Your task to perform on an android device: turn on showing notifications on the lock screen Image 0: 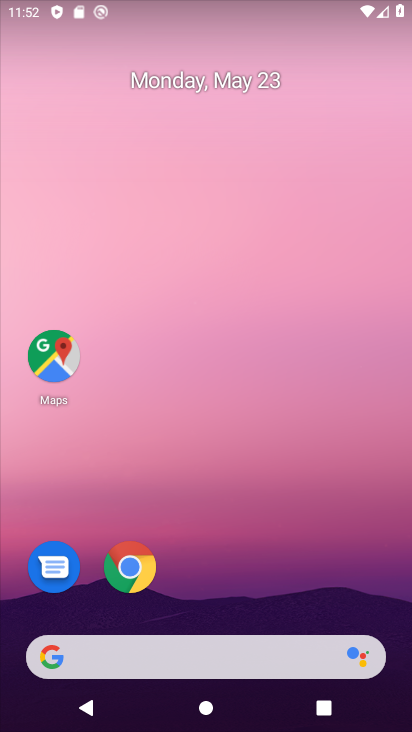
Step 0: drag from (292, 611) to (208, 228)
Your task to perform on an android device: turn on showing notifications on the lock screen Image 1: 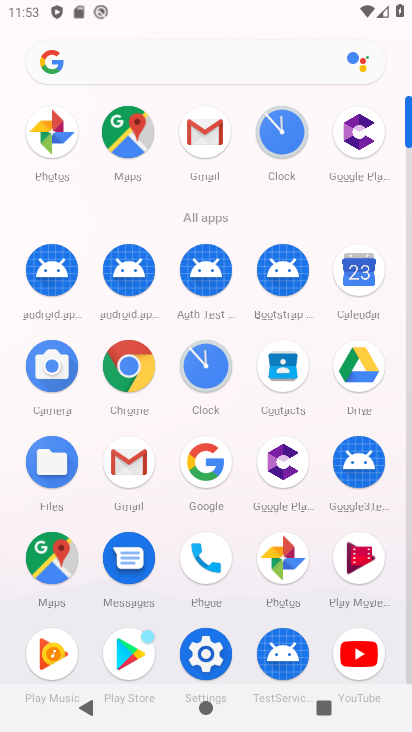
Step 1: click (209, 652)
Your task to perform on an android device: turn on showing notifications on the lock screen Image 2: 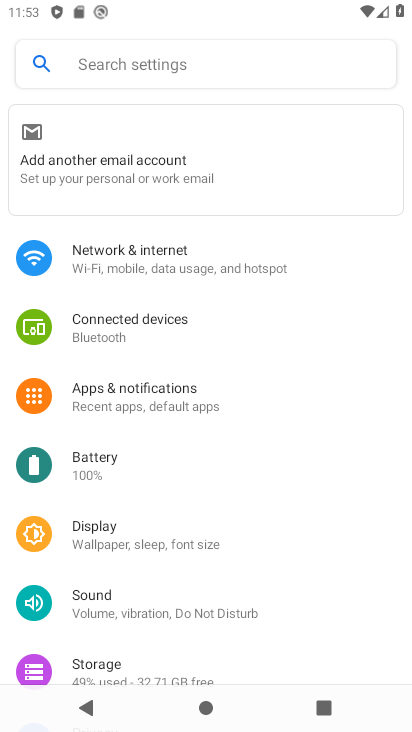
Step 2: click (243, 407)
Your task to perform on an android device: turn on showing notifications on the lock screen Image 3: 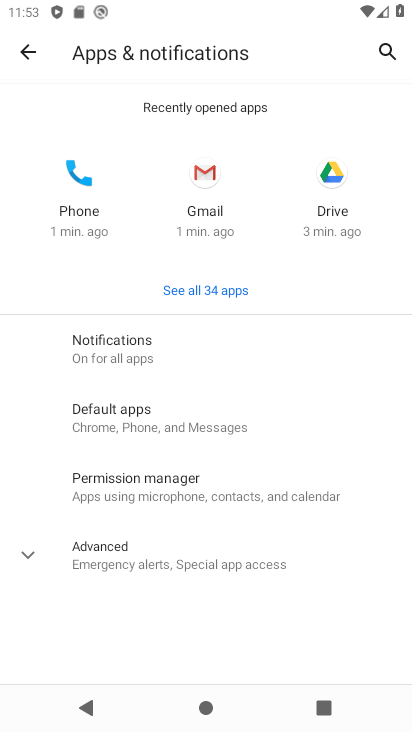
Step 3: click (231, 360)
Your task to perform on an android device: turn on showing notifications on the lock screen Image 4: 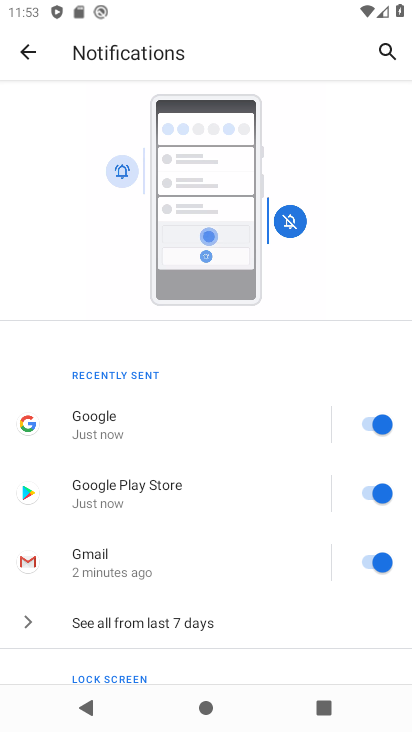
Step 4: drag from (220, 660) to (189, 221)
Your task to perform on an android device: turn on showing notifications on the lock screen Image 5: 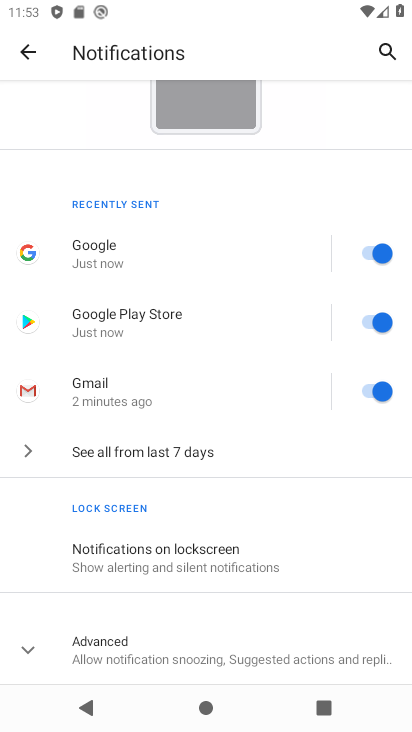
Step 5: click (219, 562)
Your task to perform on an android device: turn on showing notifications on the lock screen Image 6: 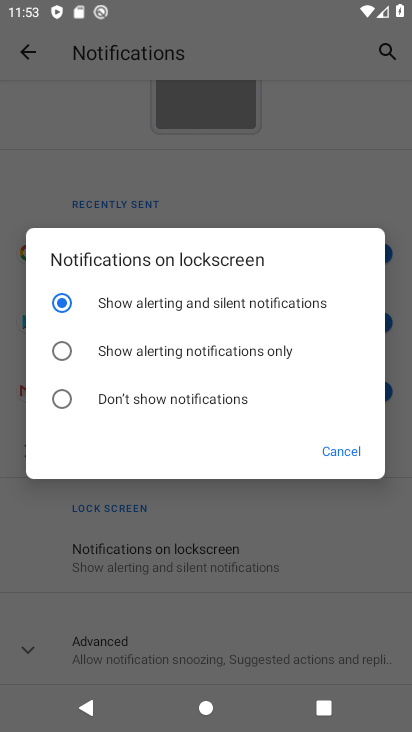
Step 6: task complete